Your task to perform on an android device: View the shopping cart on walmart.com. Add razer naga to the cart on walmart.com, then select checkout. Image 0: 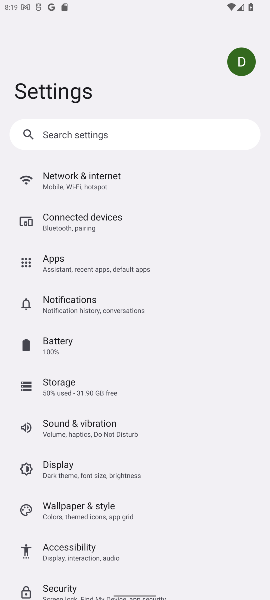
Step 0: press home button
Your task to perform on an android device: View the shopping cart on walmart.com. Add razer naga to the cart on walmart.com, then select checkout. Image 1: 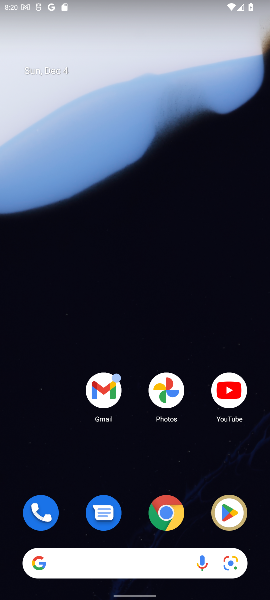
Step 1: click (175, 511)
Your task to perform on an android device: View the shopping cart on walmart.com. Add razer naga to the cart on walmart.com, then select checkout. Image 2: 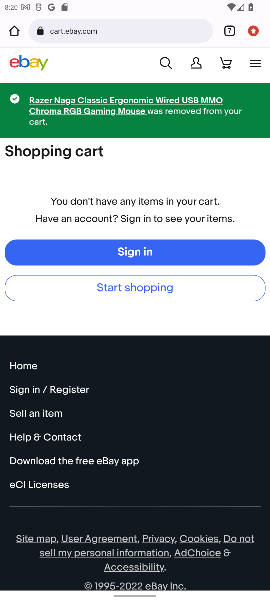
Step 2: click (230, 32)
Your task to perform on an android device: View the shopping cart on walmart.com. Add razer naga to the cart on walmart.com, then select checkout. Image 3: 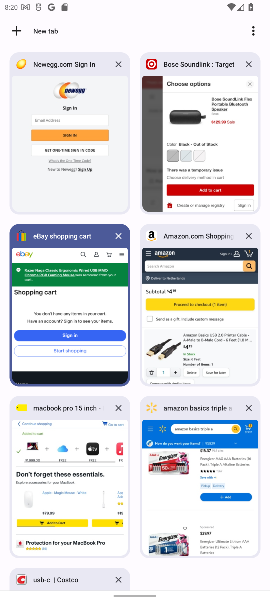
Step 3: click (165, 449)
Your task to perform on an android device: View the shopping cart on walmart.com. Add razer naga to the cart on walmart.com, then select checkout. Image 4: 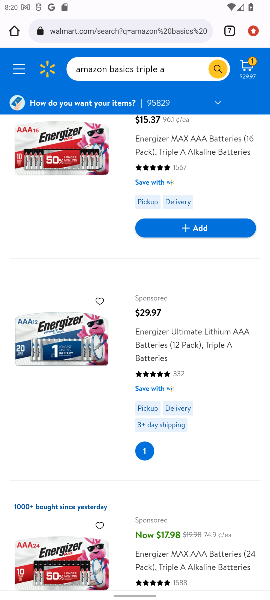
Step 4: click (249, 67)
Your task to perform on an android device: View the shopping cart on walmart.com. Add razer naga to the cart on walmart.com, then select checkout. Image 5: 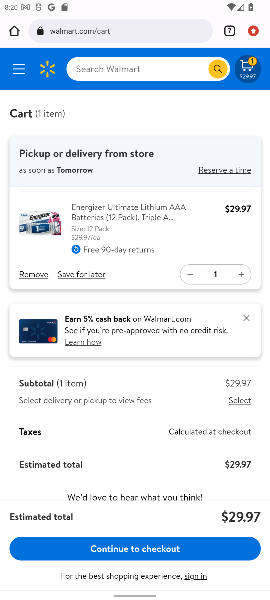
Step 5: click (122, 75)
Your task to perform on an android device: View the shopping cart on walmart.com. Add razer naga to the cart on walmart.com, then select checkout. Image 6: 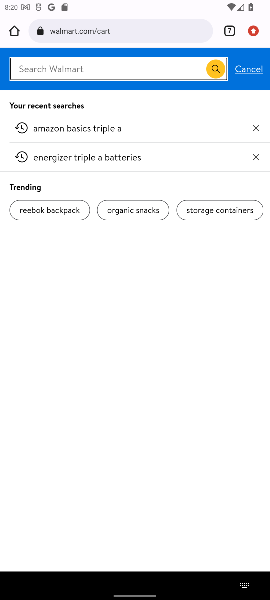
Step 6: type "razer naga"
Your task to perform on an android device: View the shopping cart on walmart.com. Add razer naga to the cart on walmart.com, then select checkout. Image 7: 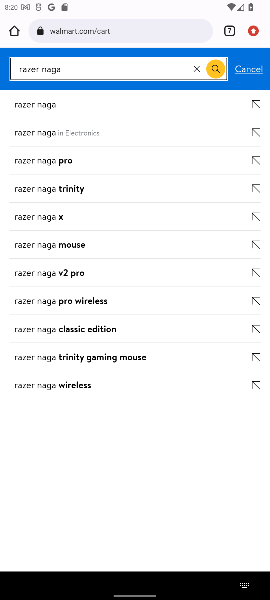
Step 7: click (28, 126)
Your task to perform on an android device: View the shopping cart on walmart.com. Add razer naga to the cart on walmart.com, then select checkout. Image 8: 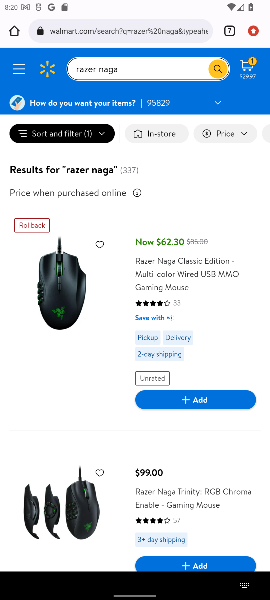
Step 8: click (187, 399)
Your task to perform on an android device: View the shopping cart on walmart.com. Add razer naga to the cart on walmart.com, then select checkout. Image 9: 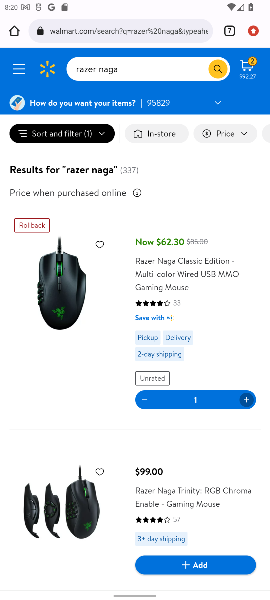
Step 9: task complete